Your task to perform on an android device: allow cookies in the chrome app Image 0: 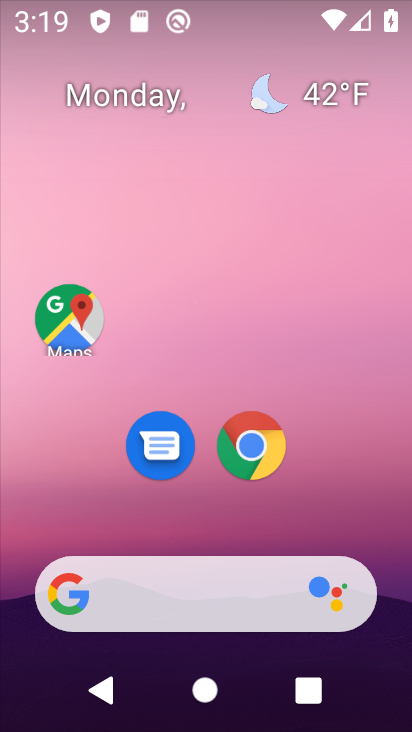
Step 0: drag from (11, 463) to (221, 40)
Your task to perform on an android device: allow cookies in the chrome app Image 1: 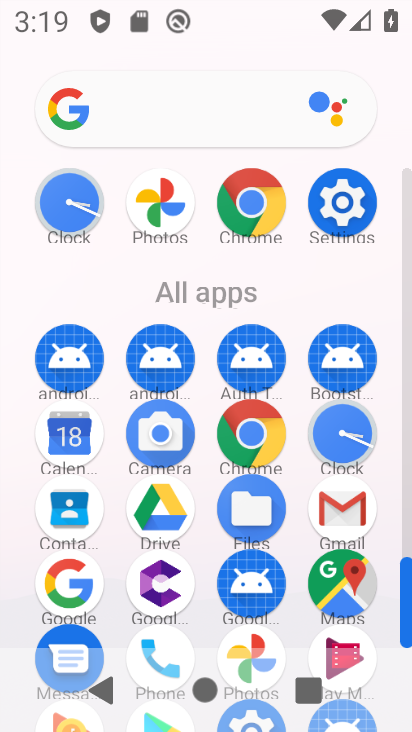
Step 1: click (257, 439)
Your task to perform on an android device: allow cookies in the chrome app Image 2: 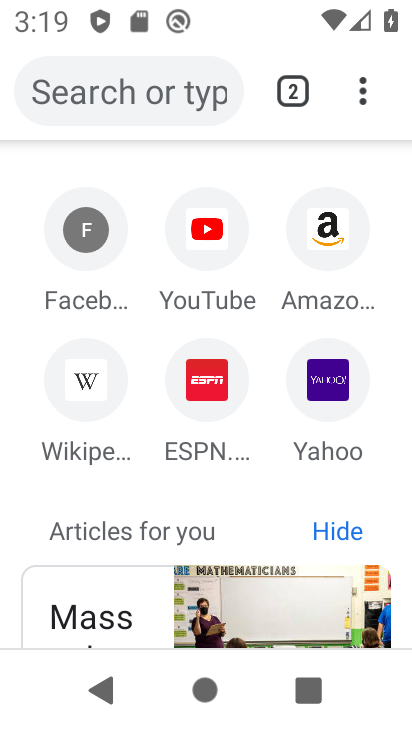
Step 2: click (370, 77)
Your task to perform on an android device: allow cookies in the chrome app Image 3: 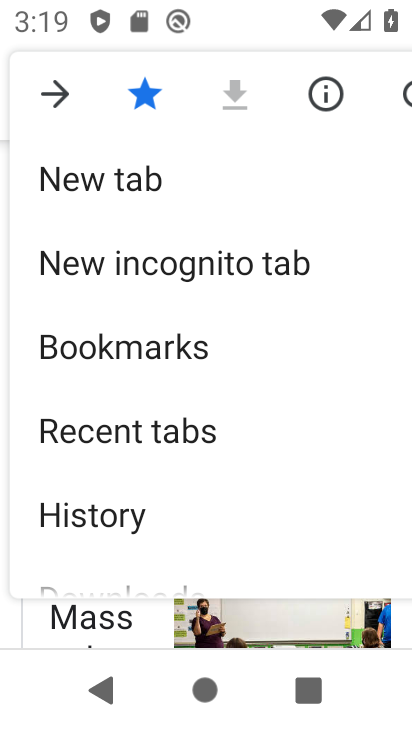
Step 3: drag from (138, 537) to (169, 295)
Your task to perform on an android device: allow cookies in the chrome app Image 4: 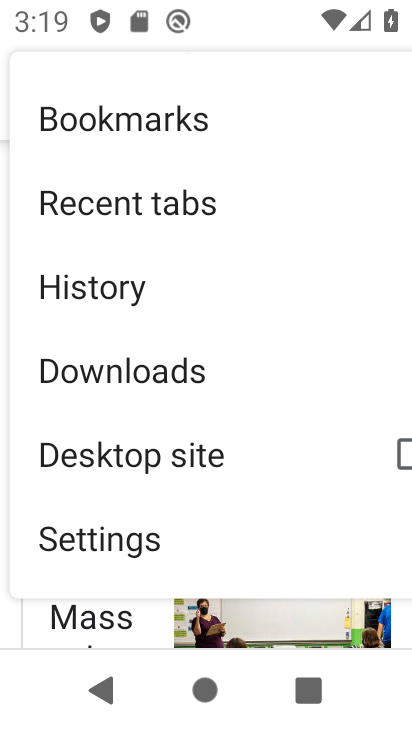
Step 4: click (114, 278)
Your task to perform on an android device: allow cookies in the chrome app Image 5: 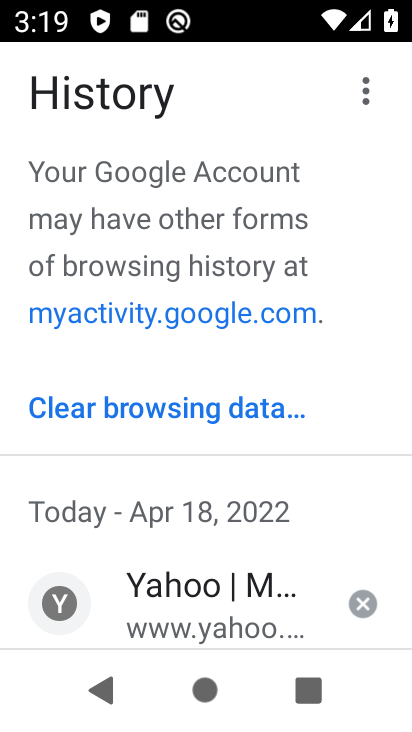
Step 5: click (156, 411)
Your task to perform on an android device: allow cookies in the chrome app Image 6: 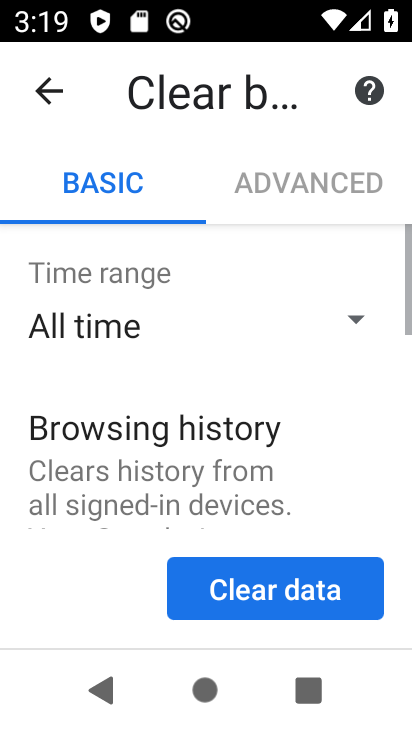
Step 6: click (251, 160)
Your task to perform on an android device: allow cookies in the chrome app Image 7: 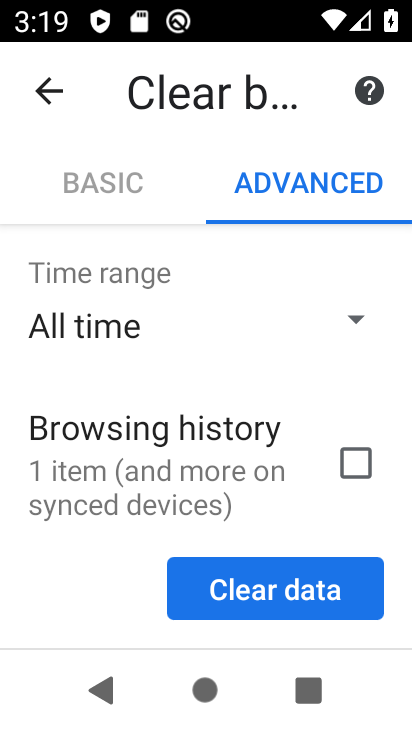
Step 7: task complete